Your task to perform on an android device: turn on location history Image 0: 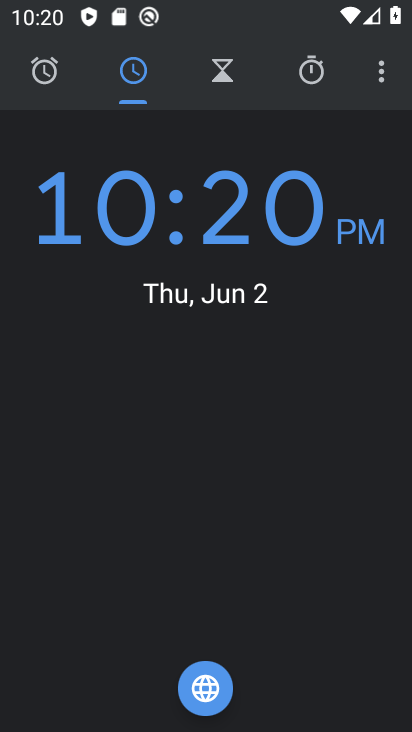
Step 0: task complete